Your task to perform on an android device: View the shopping cart on costco.com. Add "razer thresher" to the cart on costco.com, then select checkout. Image 0: 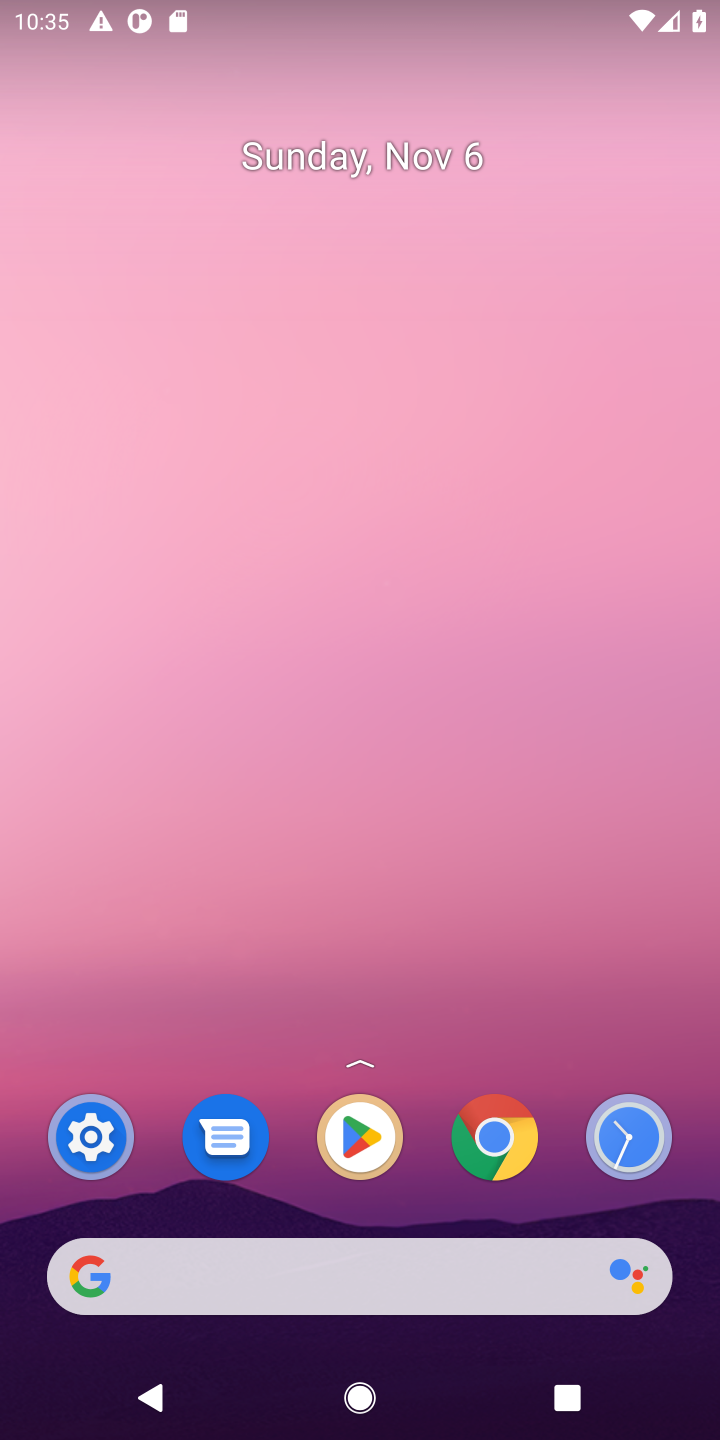
Step 0: drag from (445, 1143) to (509, 31)
Your task to perform on an android device: View the shopping cart on costco.com. Add "razer thresher" to the cart on costco.com, then select checkout. Image 1: 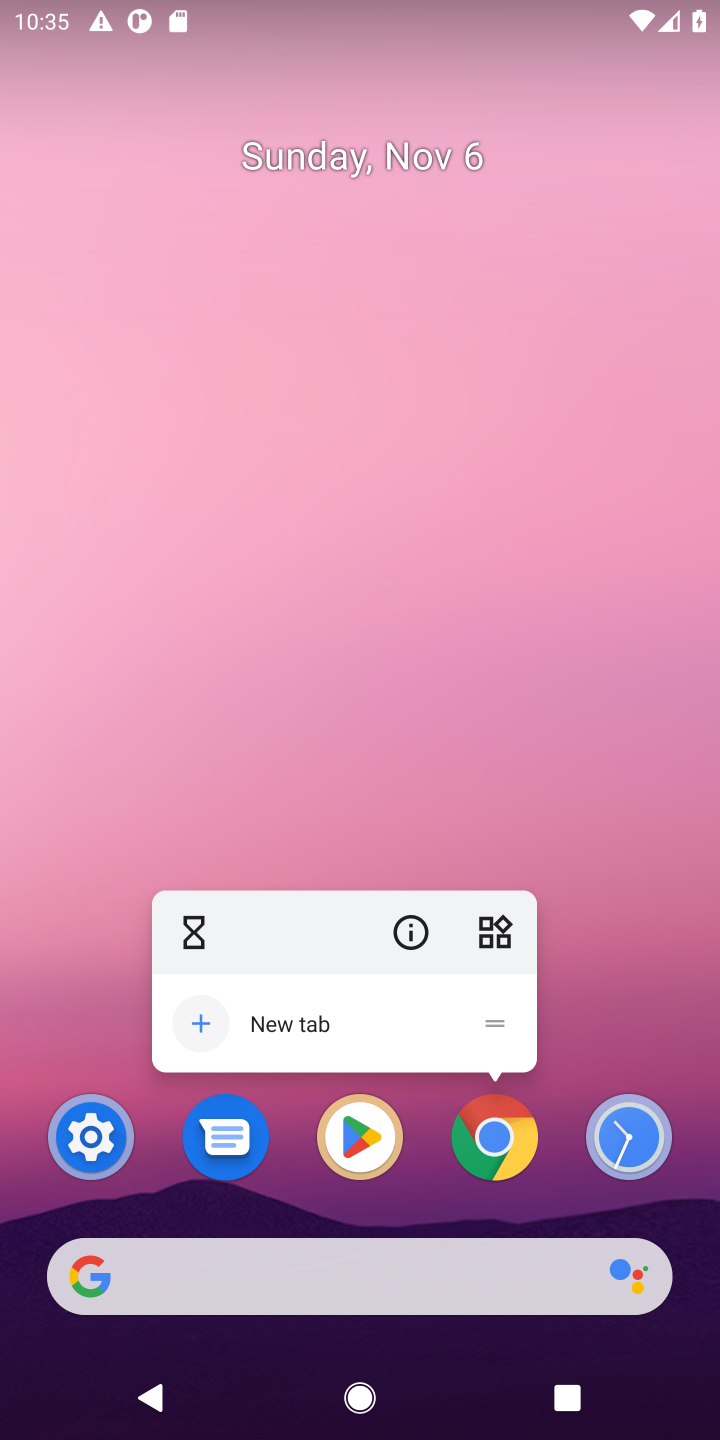
Step 1: click (423, 1209)
Your task to perform on an android device: View the shopping cart on costco.com. Add "razer thresher" to the cart on costco.com, then select checkout. Image 2: 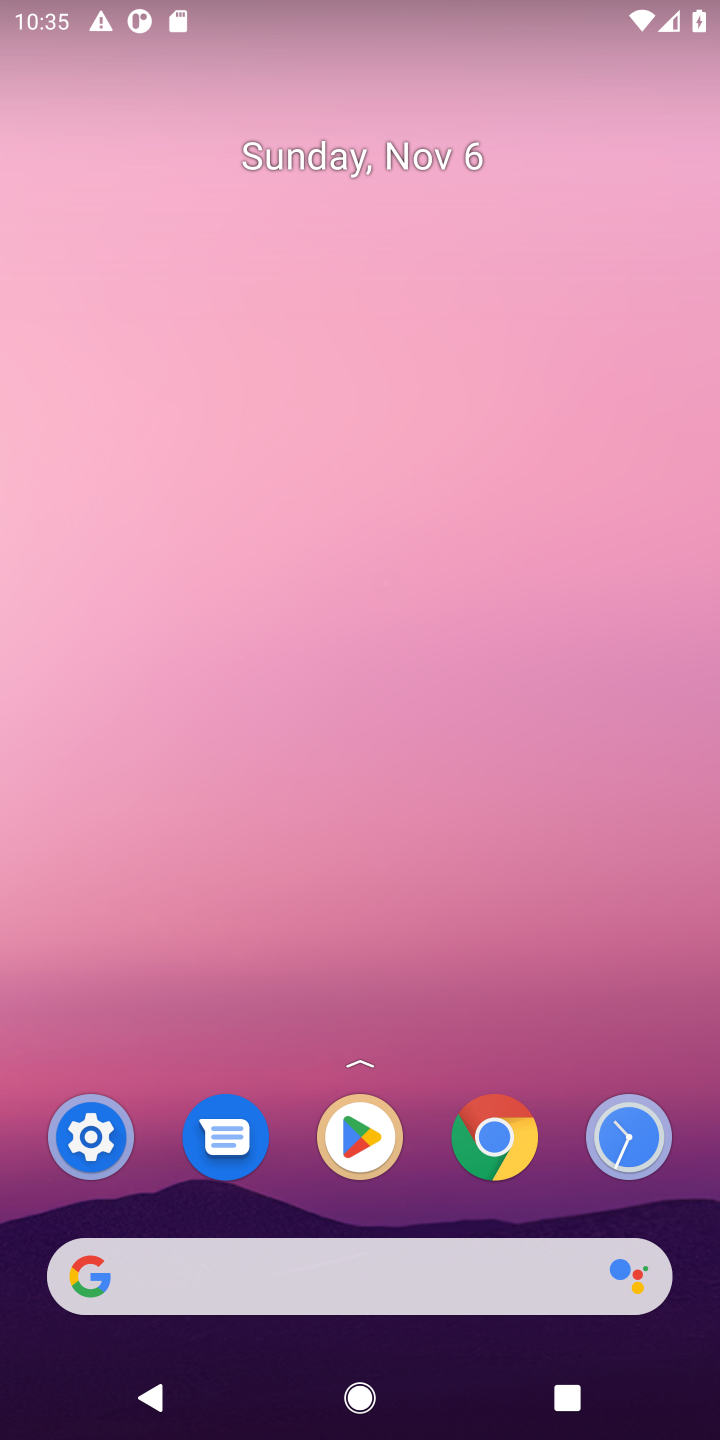
Step 2: drag from (399, 1062) to (433, 149)
Your task to perform on an android device: View the shopping cart on costco.com. Add "razer thresher" to the cart on costco.com, then select checkout. Image 3: 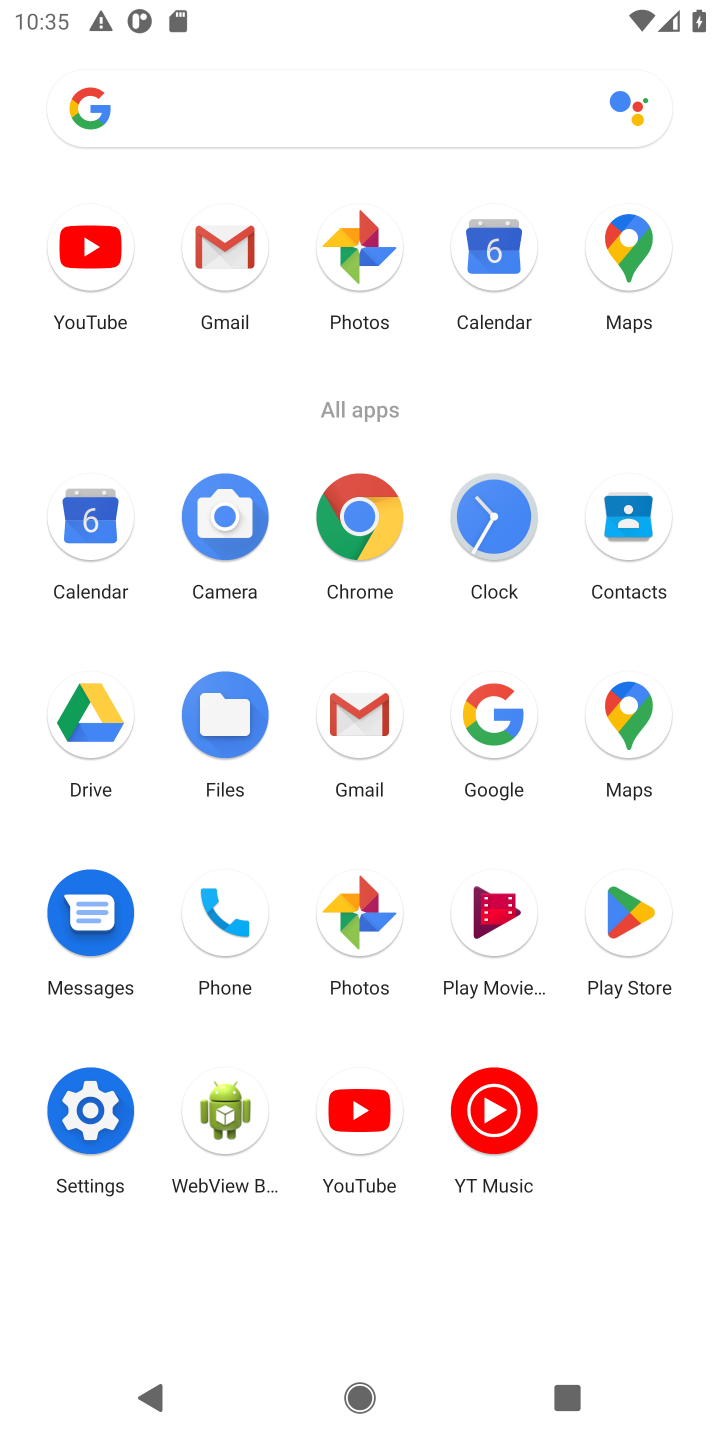
Step 3: click (357, 523)
Your task to perform on an android device: View the shopping cart on costco.com. Add "razer thresher" to the cart on costco.com, then select checkout. Image 4: 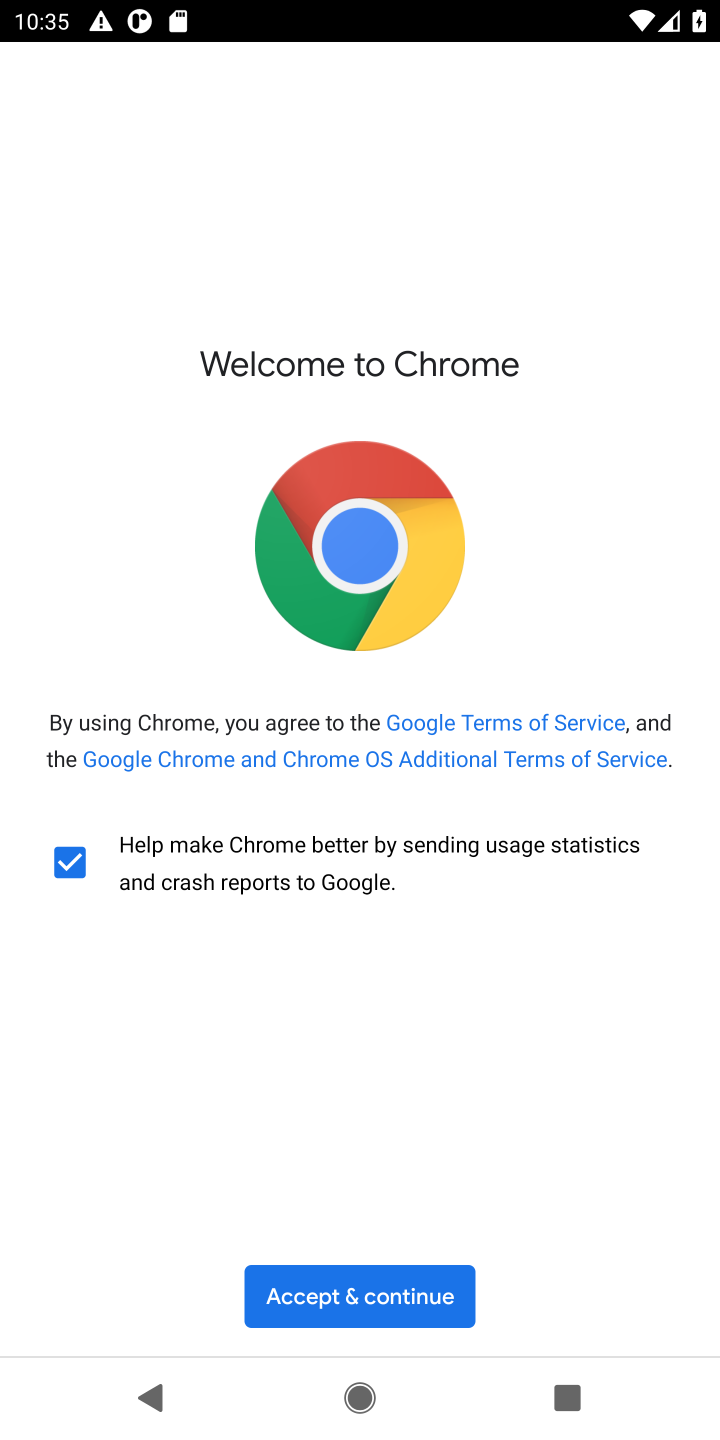
Step 4: click (306, 1293)
Your task to perform on an android device: View the shopping cart on costco.com. Add "razer thresher" to the cart on costco.com, then select checkout. Image 5: 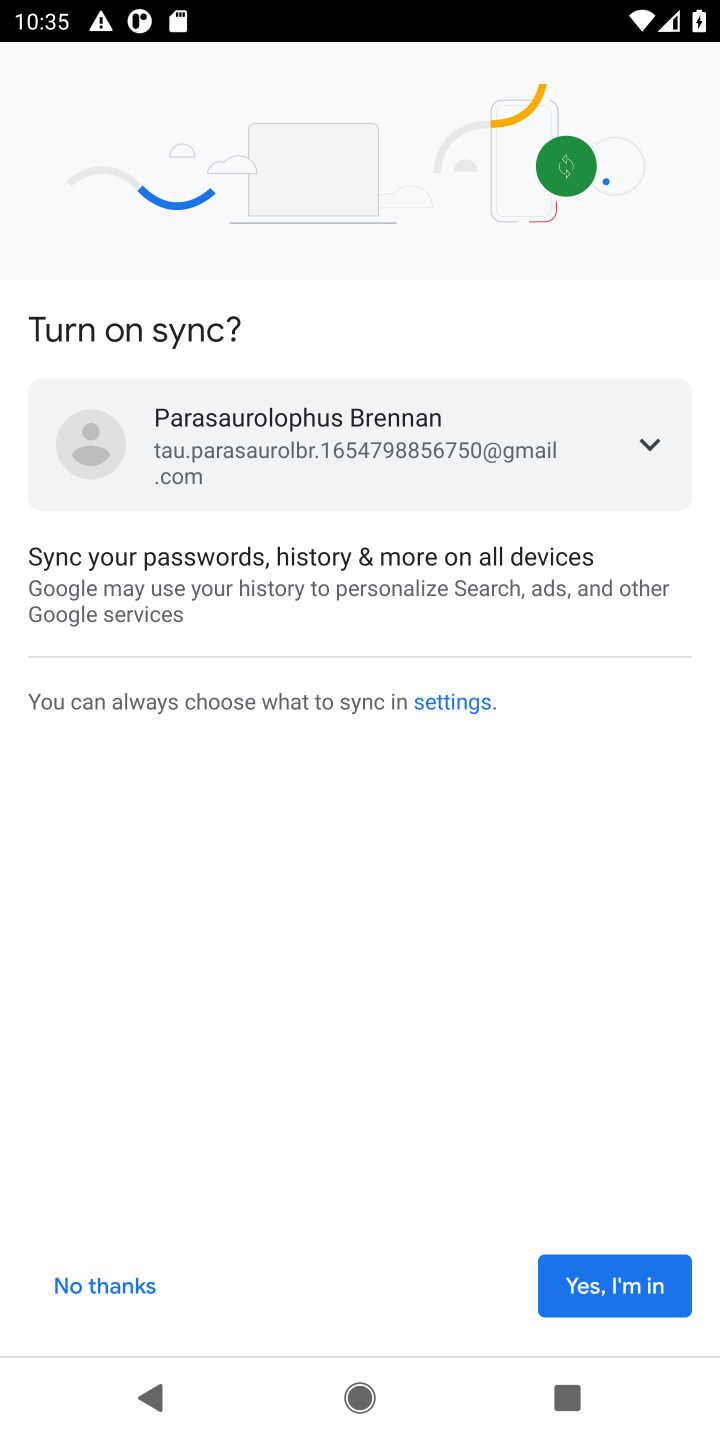
Step 5: click (574, 1283)
Your task to perform on an android device: View the shopping cart on costco.com. Add "razer thresher" to the cart on costco.com, then select checkout. Image 6: 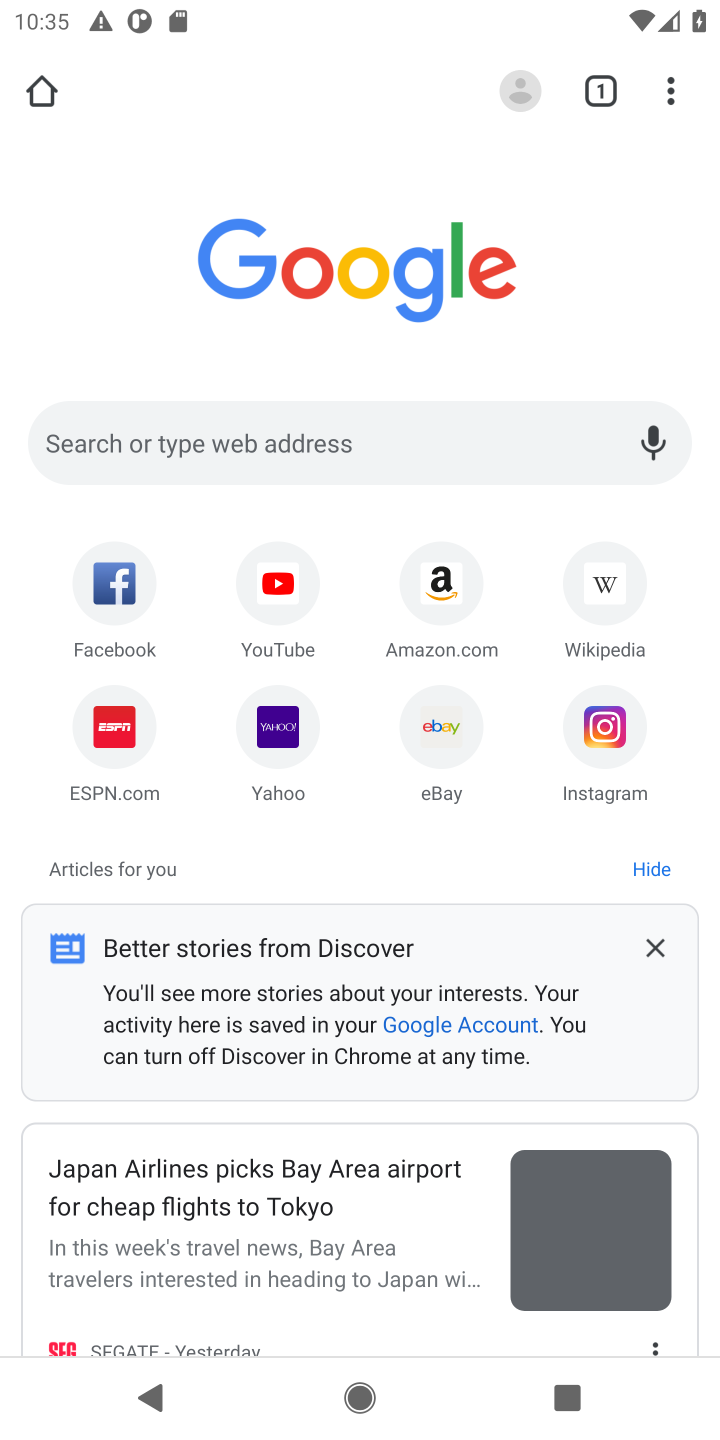
Step 6: click (400, 446)
Your task to perform on an android device: View the shopping cart on costco.com. Add "razer thresher" to the cart on costco.com, then select checkout. Image 7: 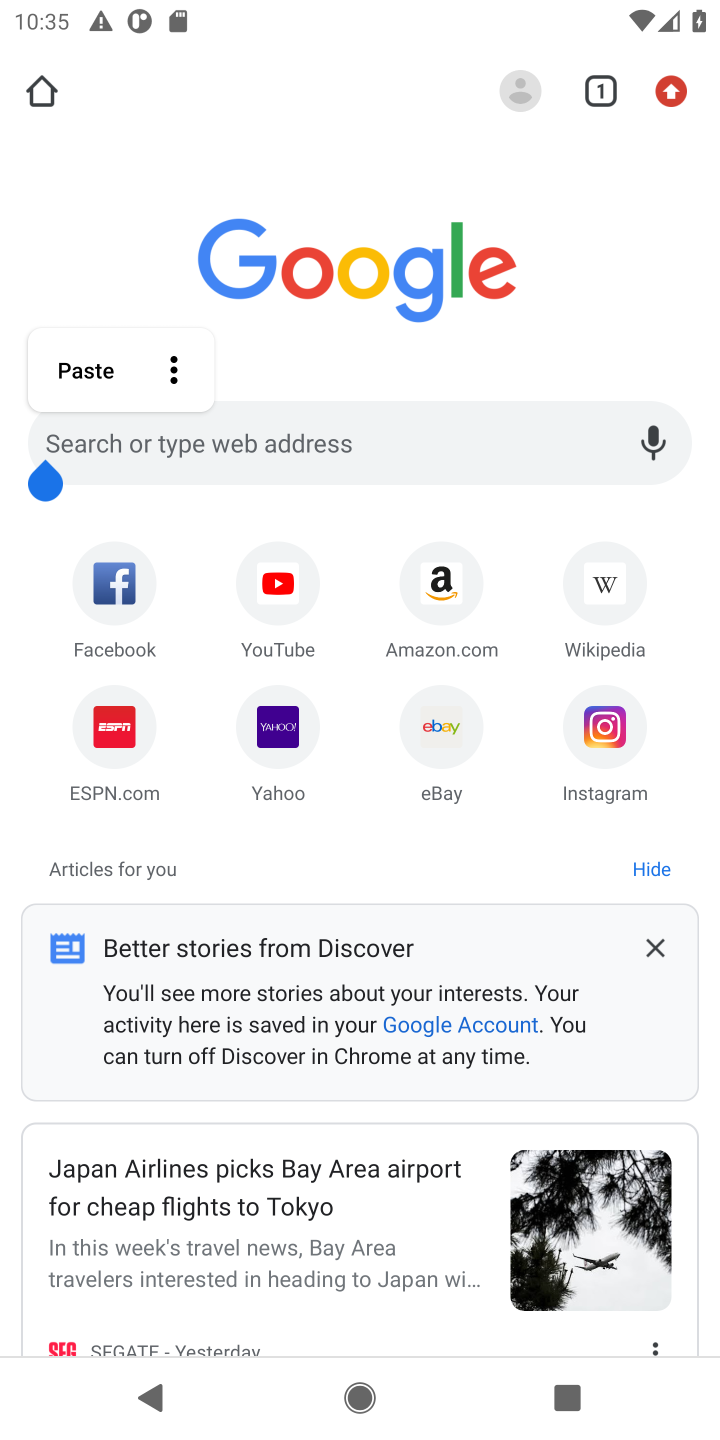
Step 7: click (323, 446)
Your task to perform on an android device: View the shopping cart on costco.com. Add "razer thresher" to the cart on costco.com, then select checkout. Image 8: 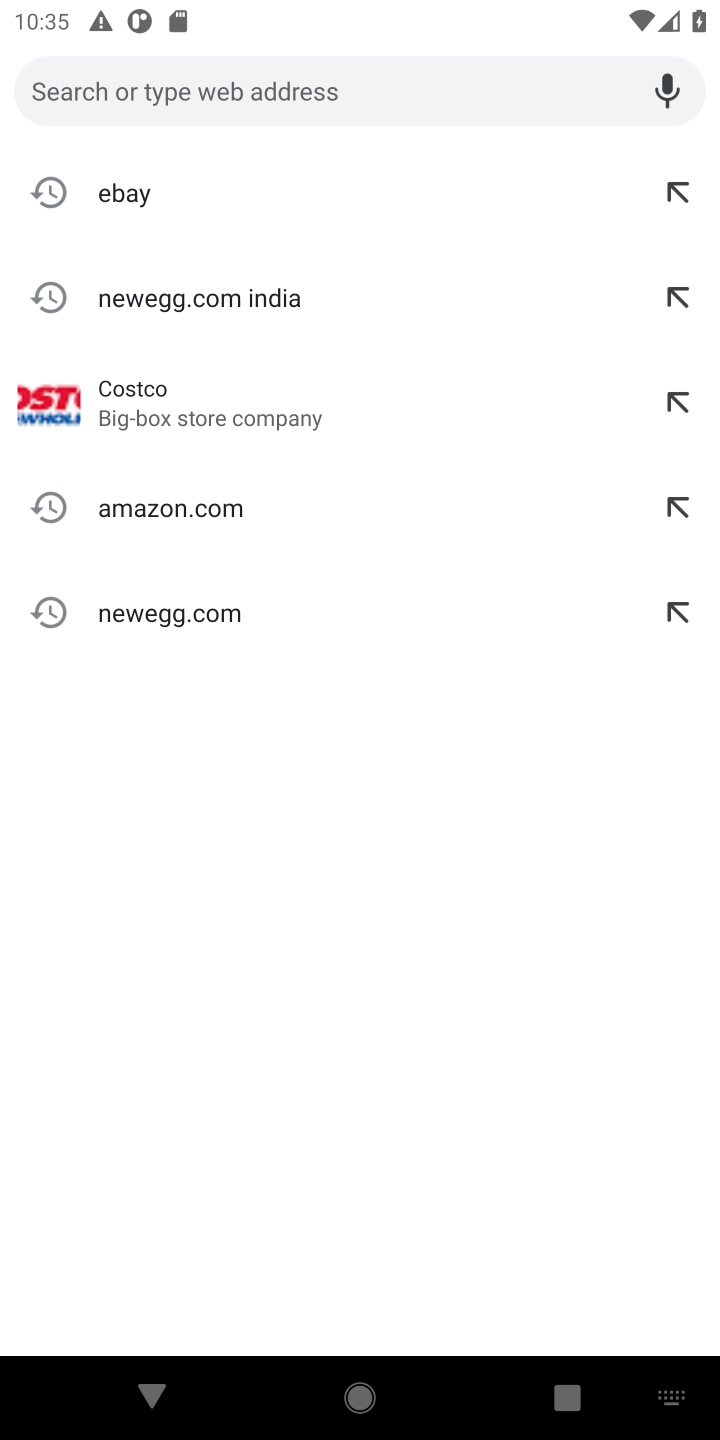
Step 8: type "costco.com"
Your task to perform on an android device: View the shopping cart on costco.com. Add "razer thresher" to the cart on costco.com, then select checkout. Image 9: 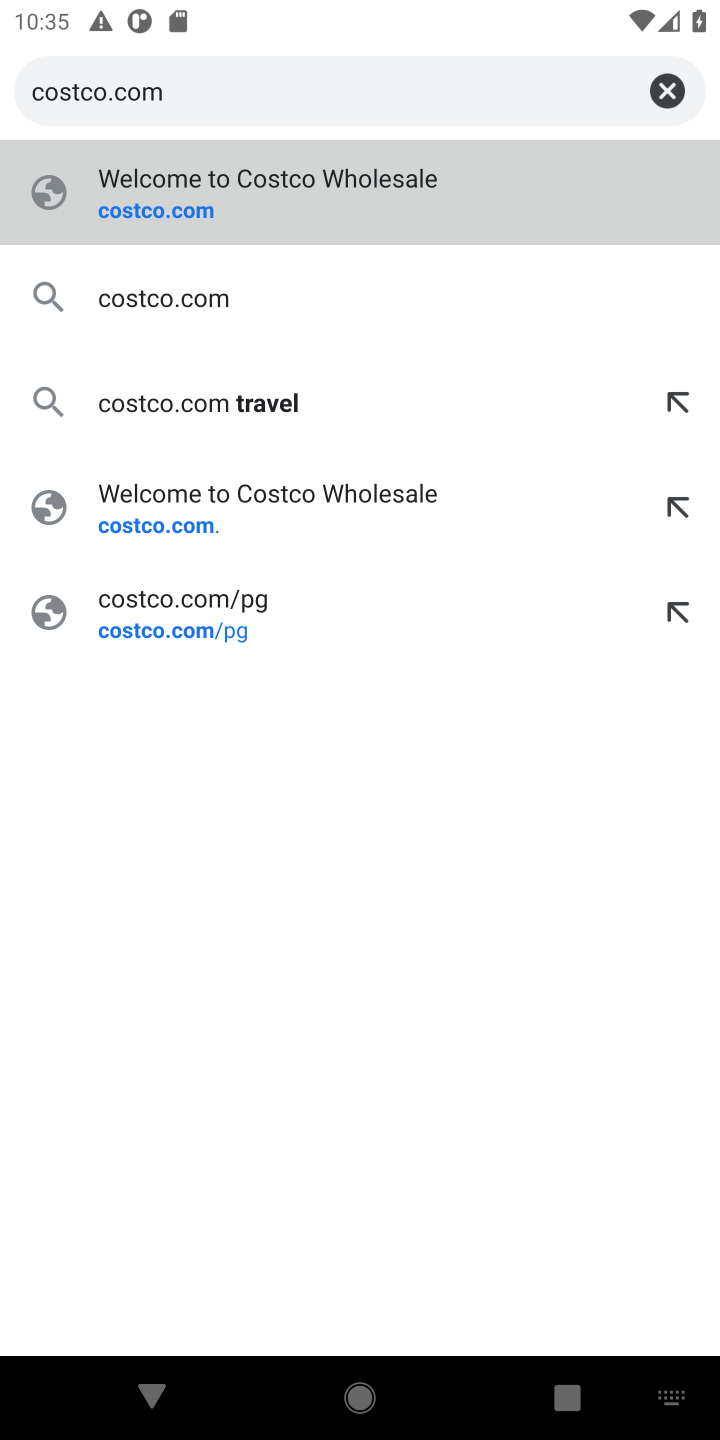
Step 9: press enter
Your task to perform on an android device: View the shopping cart on costco.com. Add "razer thresher" to the cart on costco.com, then select checkout. Image 10: 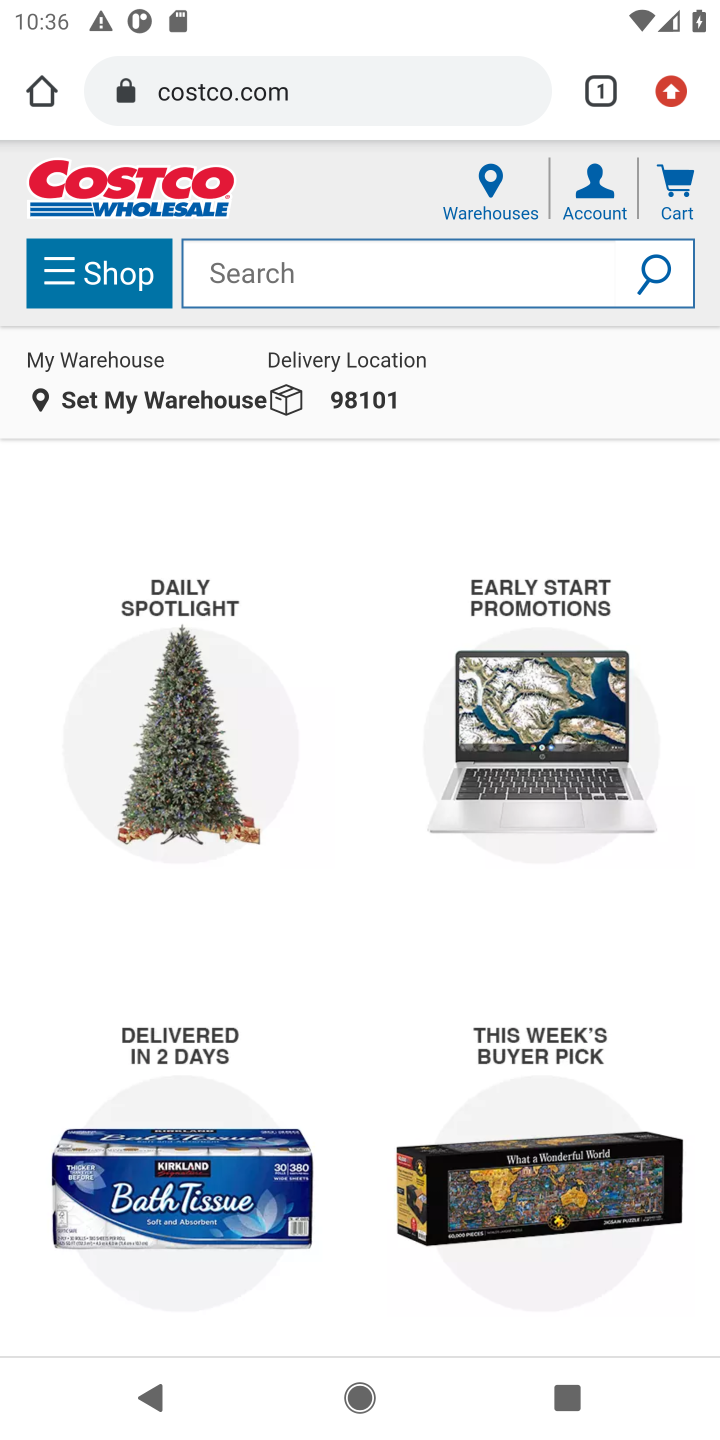
Step 10: click (683, 177)
Your task to perform on an android device: View the shopping cart on costco.com. Add "razer thresher" to the cart on costco.com, then select checkout. Image 11: 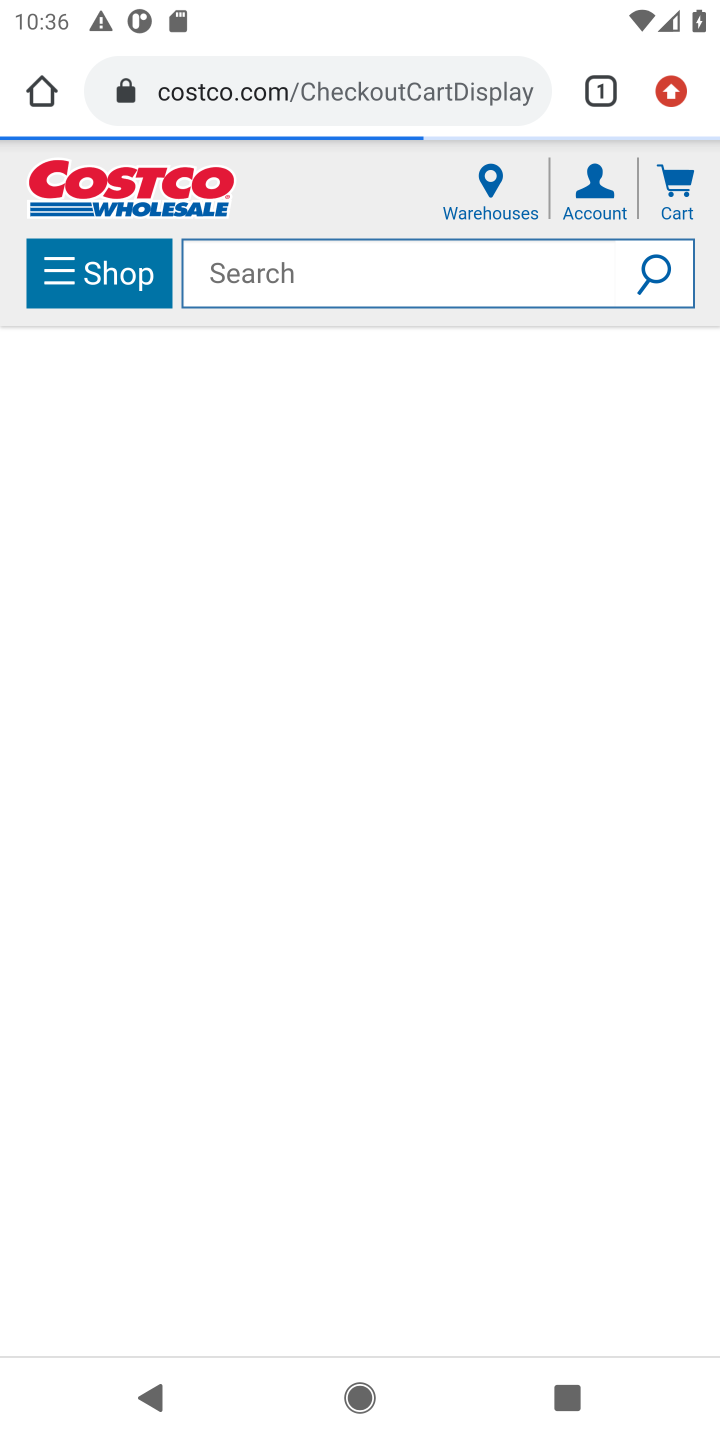
Step 11: click (681, 213)
Your task to perform on an android device: View the shopping cart on costco.com. Add "razer thresher" to the cart on costco.com, then select checkout. Image 12: 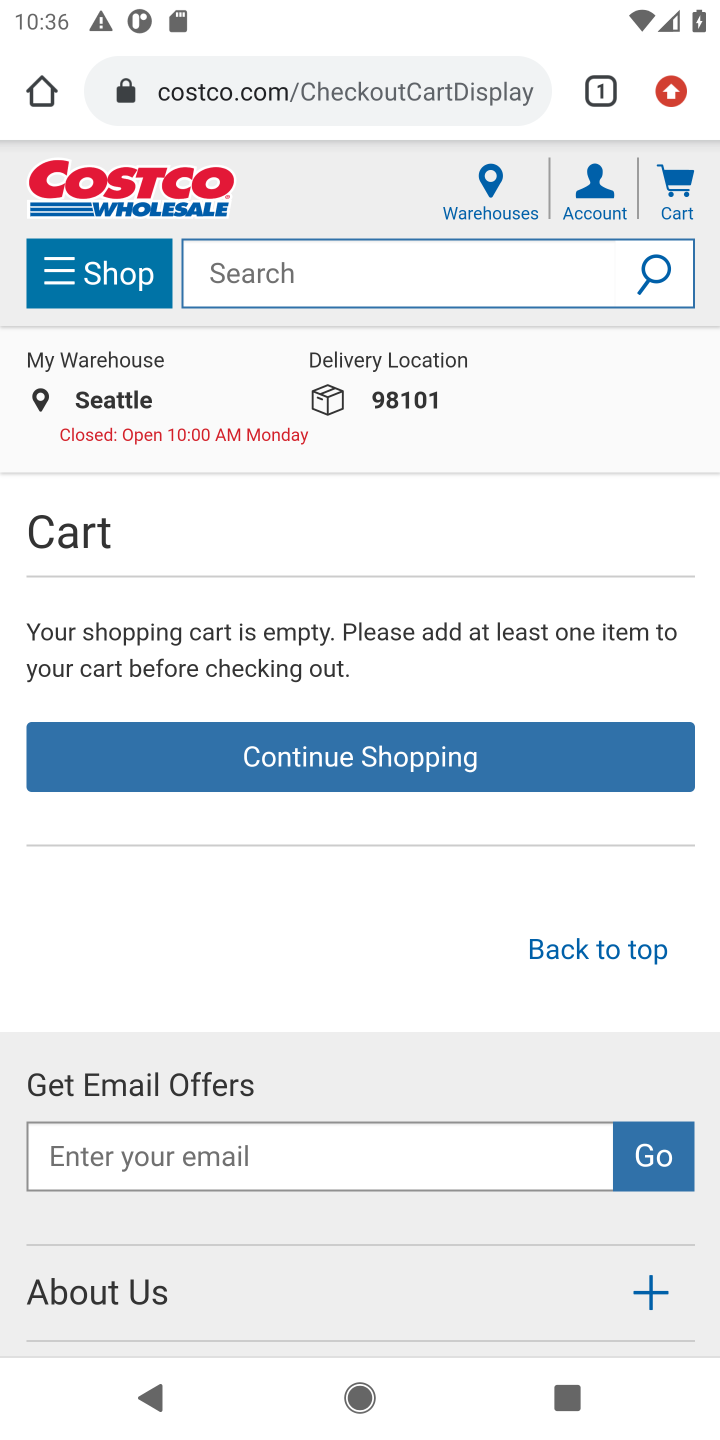
Step 12: click (407, 283)
Your task to perform on an android device: View the shopping cart on costco.com. Add "razer thresher" to the cart on costco.com, then select checkout. Image 13: 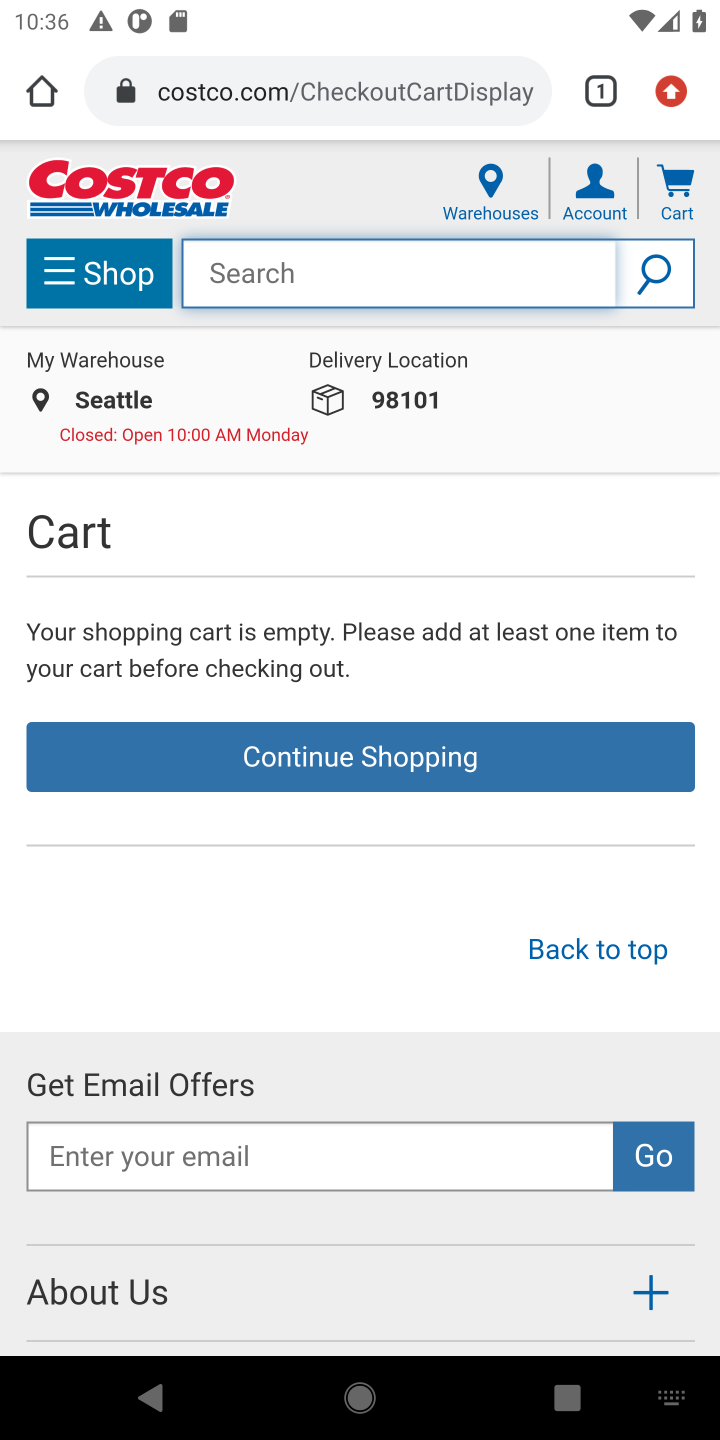
Step 13: type "razer thresher"
Your task to perform on an android device: View the shopping cart on costco.com. Add "razer thresher" to the cart on costco.com, then select checkout. Image 14: 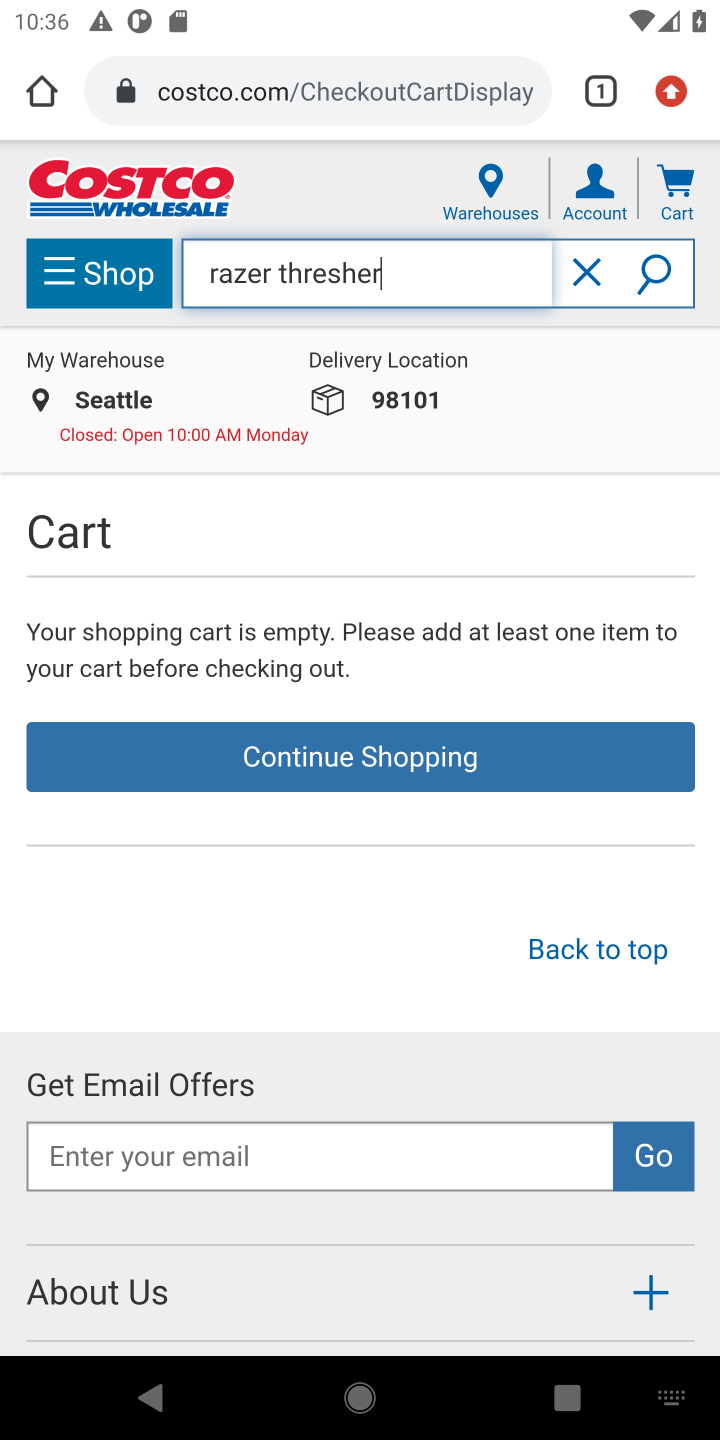
Step 14: press enter
Your task to perform on an android device: View the shopping cart on costco.com. Add "razer thresher" to the cart on costco.com, then select checkout. Image 15: 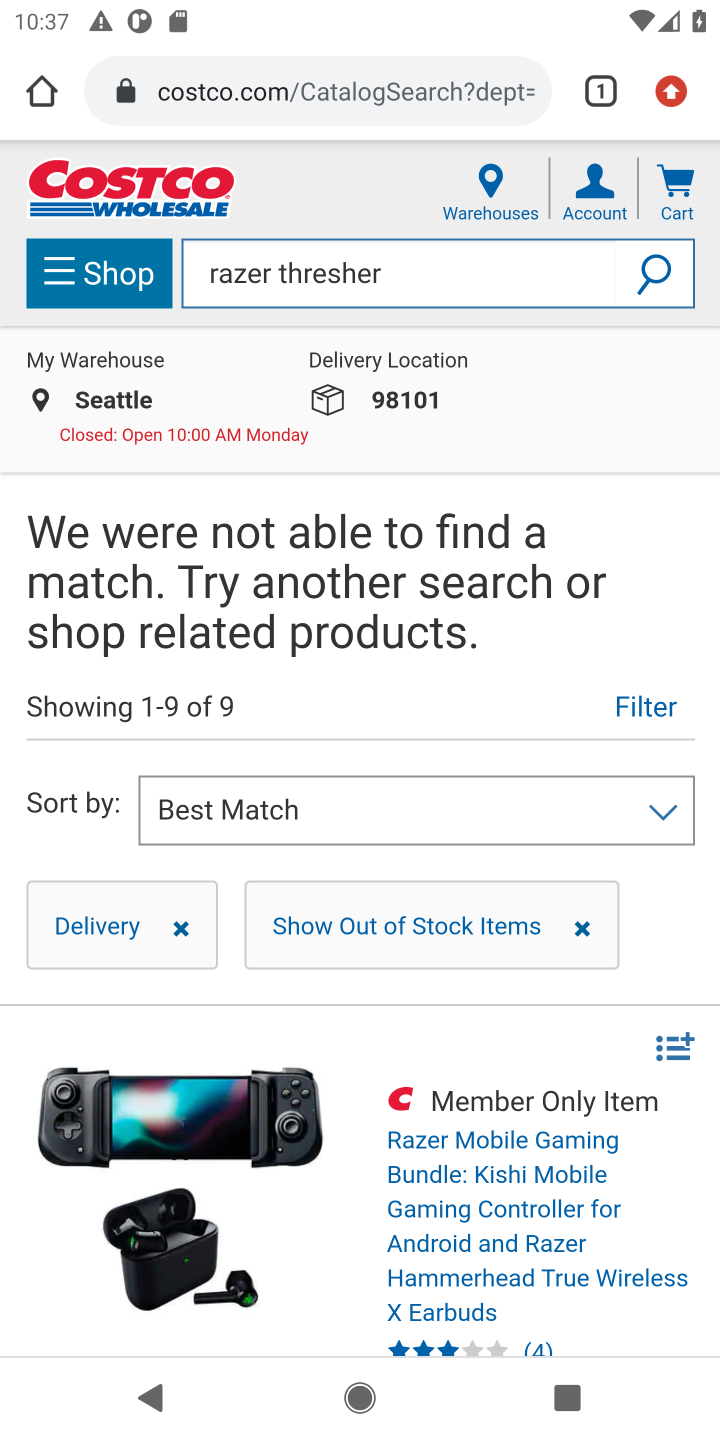
Step 15: task complete